Your task to perform on an android device: Go to Wikipedia Image 0: 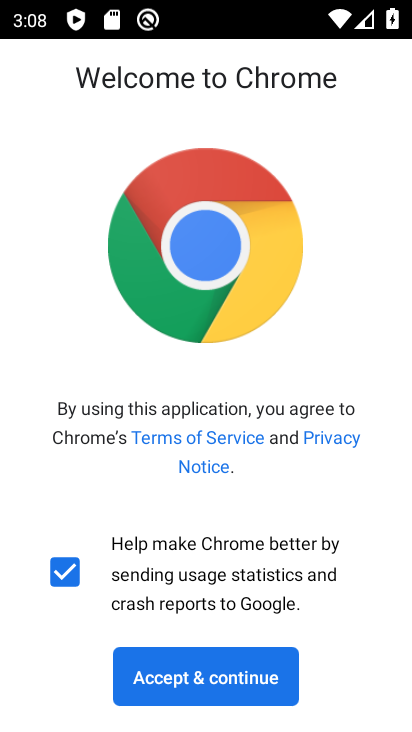
Step 0: press back button
Your task to perform on an android device: Go to Wikipedia Image 1: 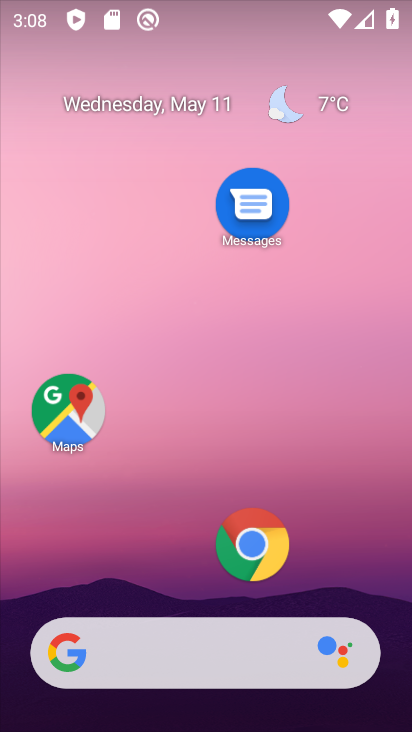
Step 1: click (227, 539)
Your task to perform on an android device: Go to Wikipedia Image 2: 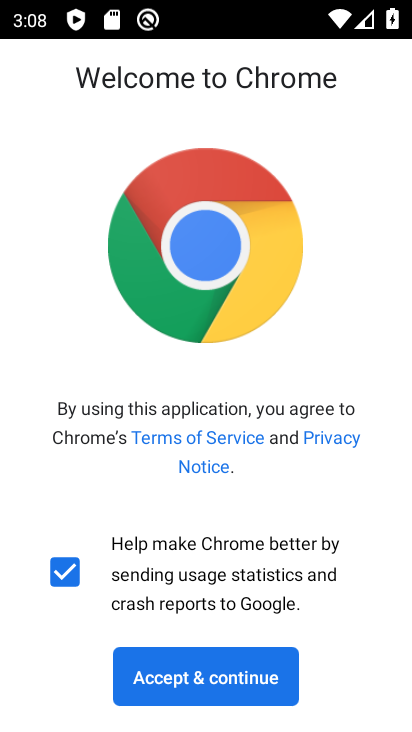
Step 2: click (163, 683)
Your task to perform on an android device: Go to Wikipedia Image 3: 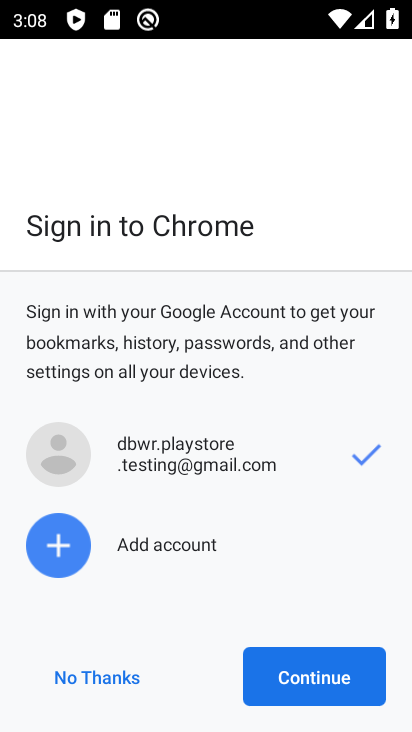
Step 3: click (288, 669)
Your task to perform on an android device: Go to Wikipedia Image 4: 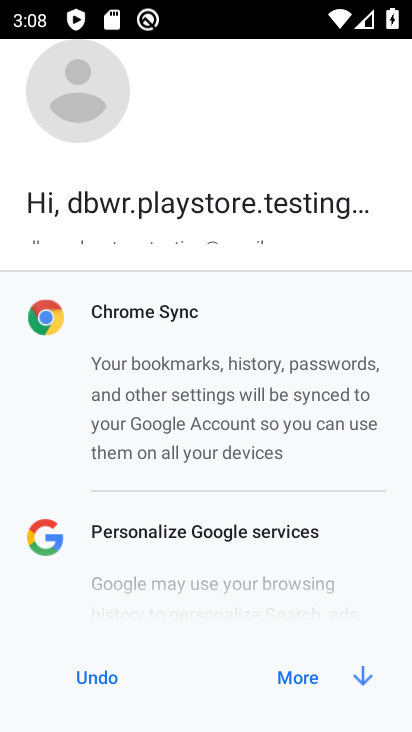
Step 4: click (326, 666)
Your task to perform on an android device: Go to Wikipedia Image 5: 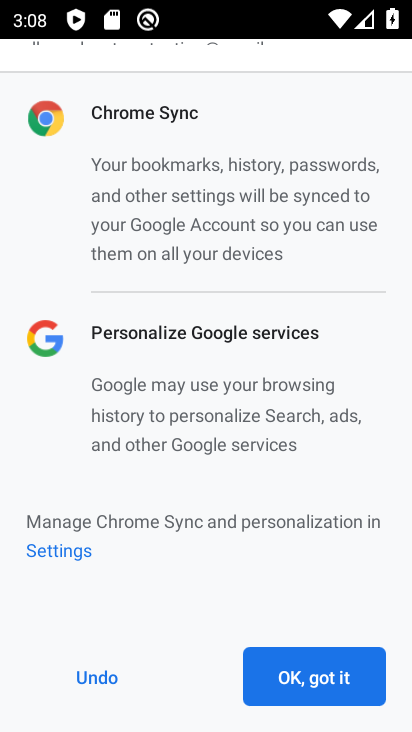
Step 5: click (341, 684)
Your task to perform on an android device: Go to Wikipedia Image 6: 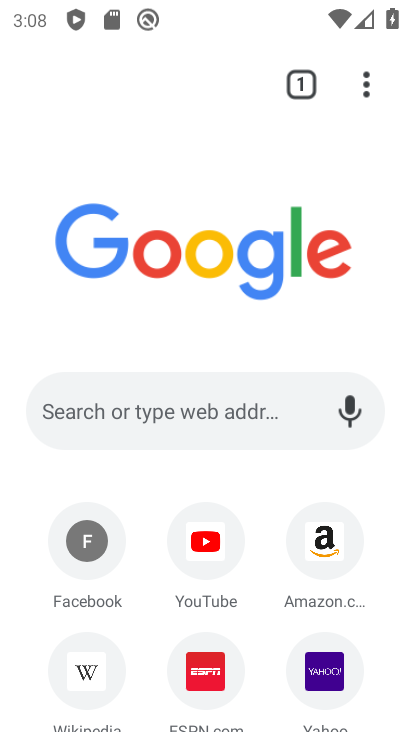
Step 6: drag from (237, 609) to (315, 281)
Your task to perform on an android device: Go to Wikipedia Image 7: 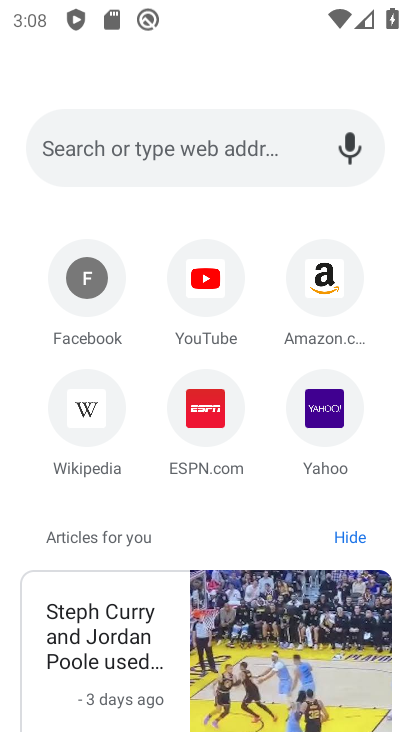
Step 7: click (68, 394)
Your task to perform on an android device: Go to Wikipedia Image 8: 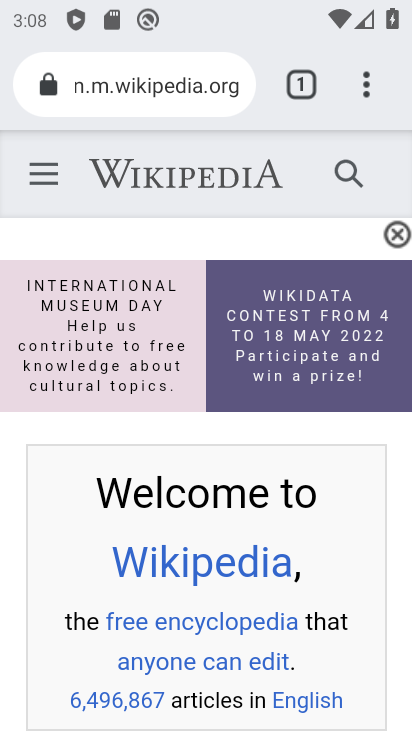
Step 8: task complete